Your task to perform on an android device: Go to Google maps Image 0: 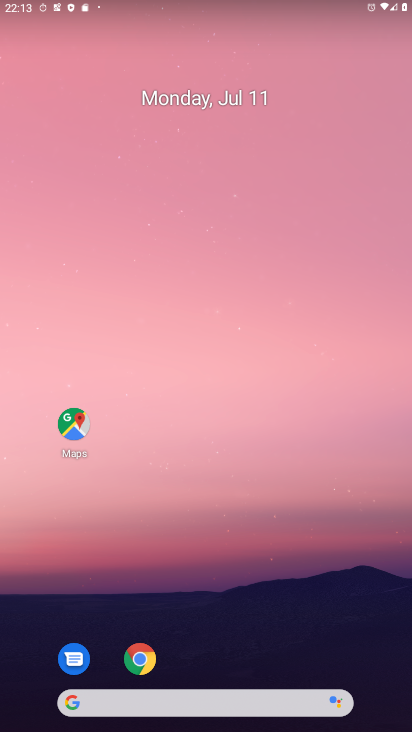
Step 0: drag from (171, 643) to (222, 198)
Your task to perform on an android device: Go to Google maps Image 1: 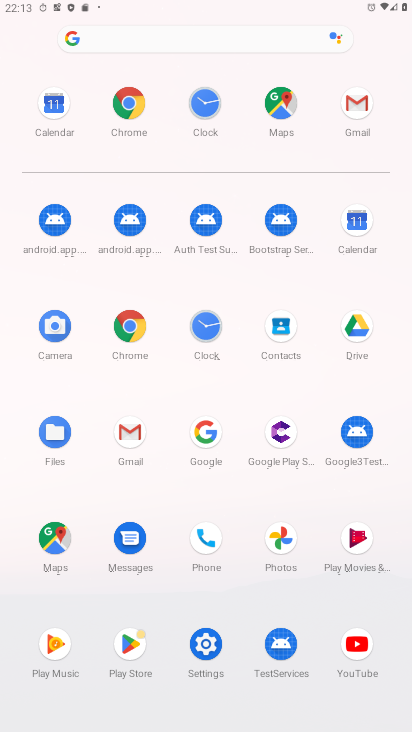
Step 1: click (51, 541)
Your task to perform on an android device: Go to Google maps Image 2: 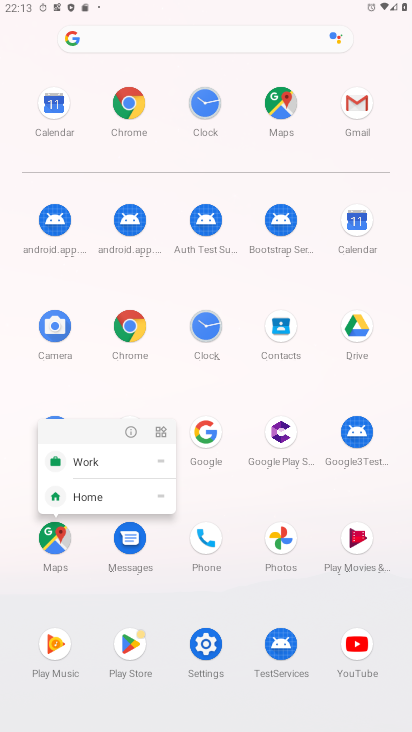
Step 2: click (132, 429)
Your task to perform on an android device: Go to Google maps Image 3: 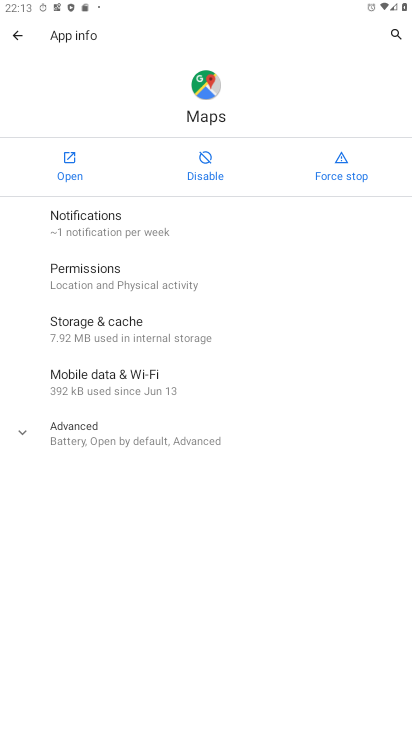
Step 3: click (61, 163)
Your task to perform on an android device: Go to Google maps Image 4: 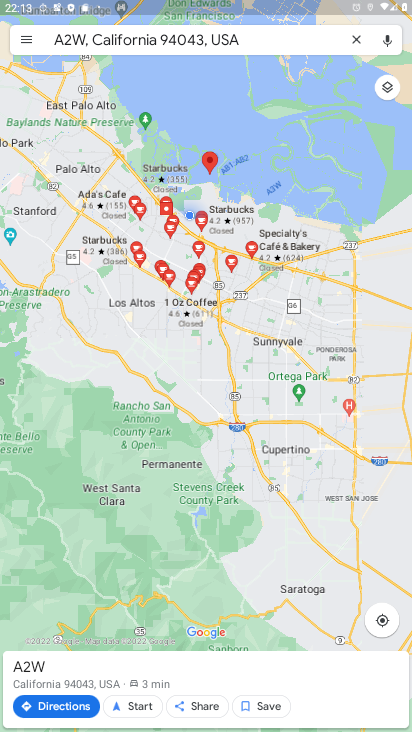
Step 4: task complete